Your task to perform on an android device: Check the news Image 0: 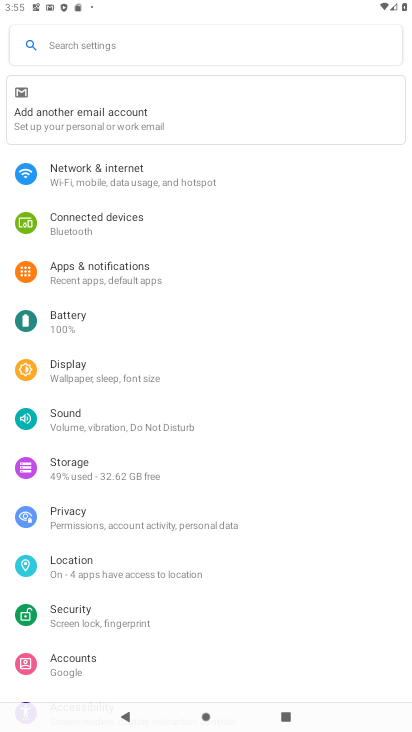
Step 0: press home button
Your task to perform on an android device: Check the news Image 1: 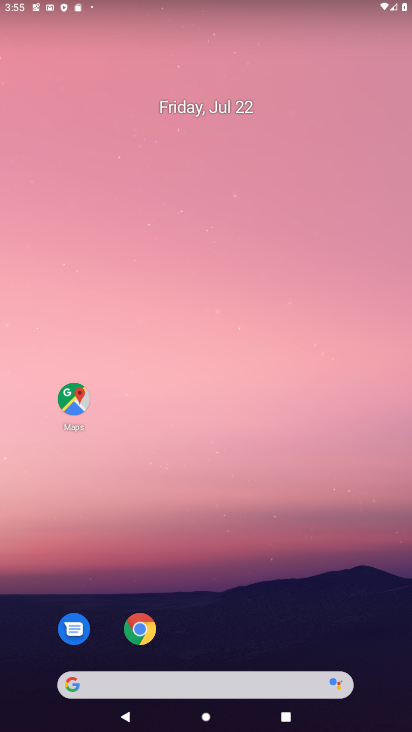
Step 1: task complete